Your task to perform on an android device: Go to Google maps Image 0: 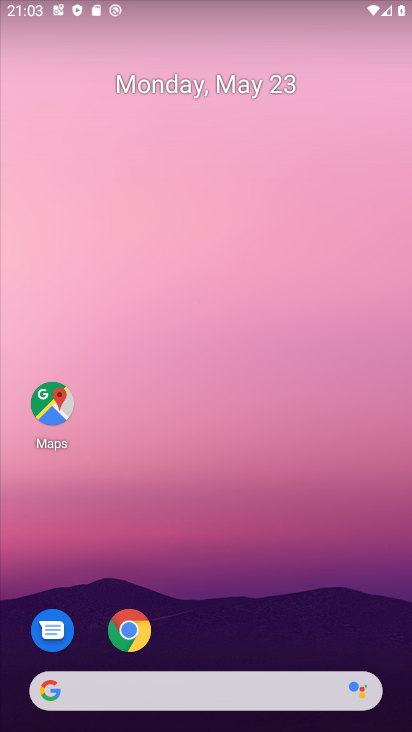
Step 0: click (54, 407)
Your task to perform on an android device: Go to Google maps Image 1: 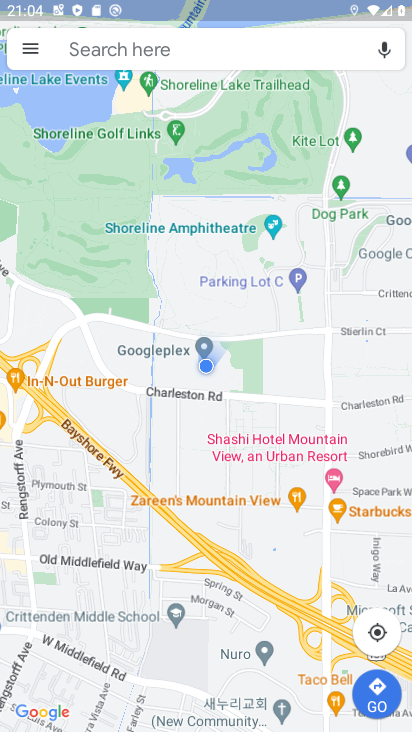
Step 1: task complete